Your task to perform on an android device: set the stopwatch Image 0: 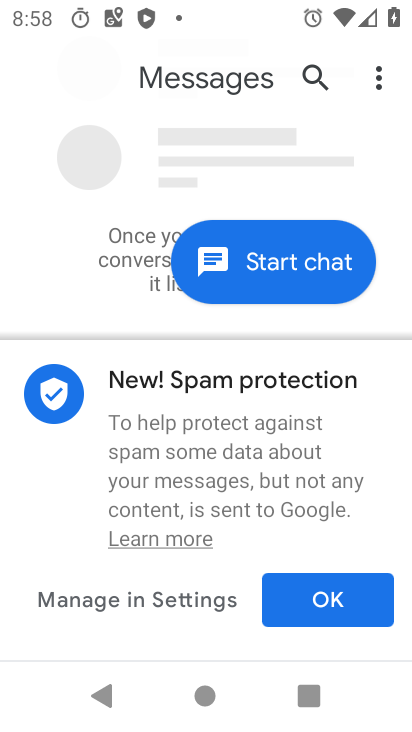
Step 0: press home button
Your task to perform on an android device: set the stopwatch Image 1: 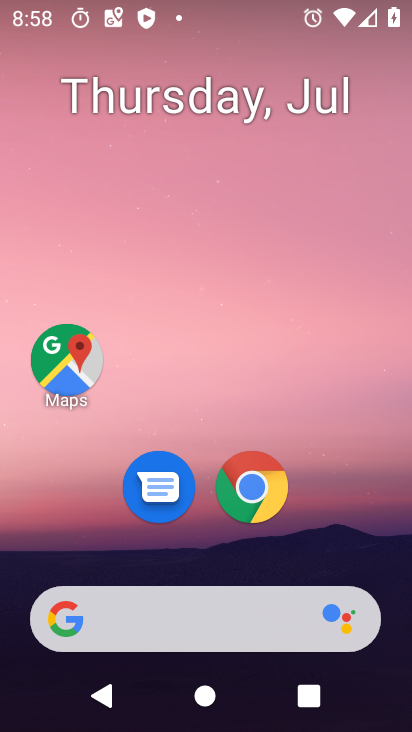
Step 1: drag from (233, 387) to (249, 1)
Your task to perform on an android device: set the stopwatch Image 2: 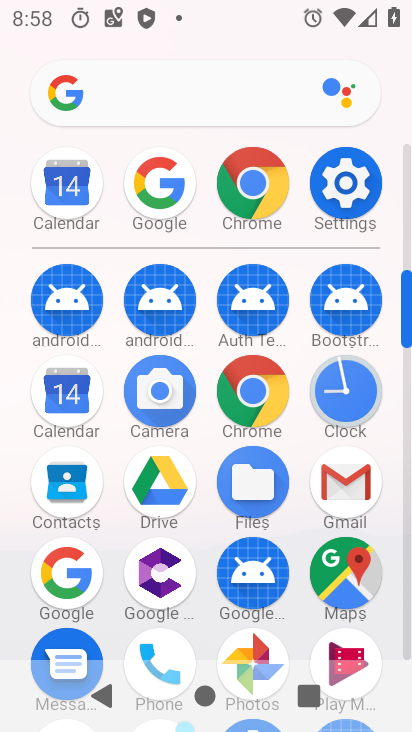
Step 2: drag from (235, 560) to (224, 189)
Your task to perform on an android device: set the stopwatch Image 3: 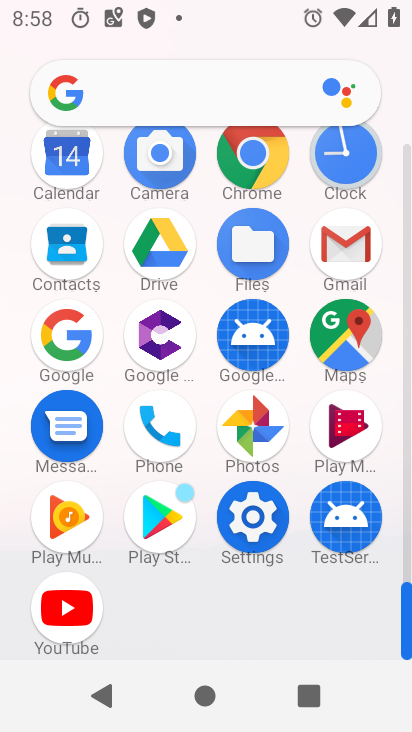
Step 3: click (346, 177)
Your task to perform on an android device: set the stopwatch Image 4: 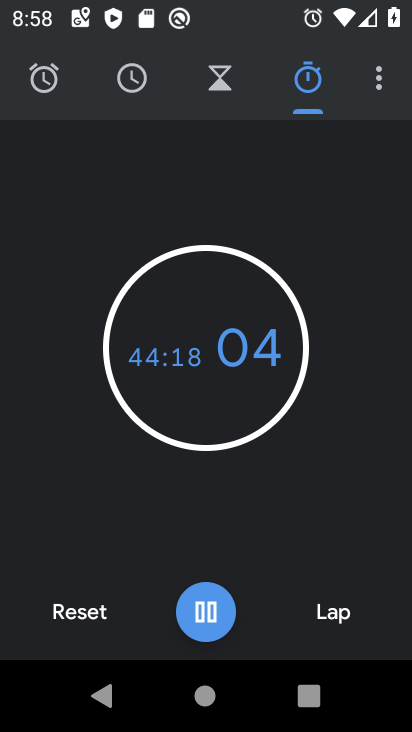
Step 4: task complete